Your task to perform on an android device: turn on improve location accuracy Image 0: 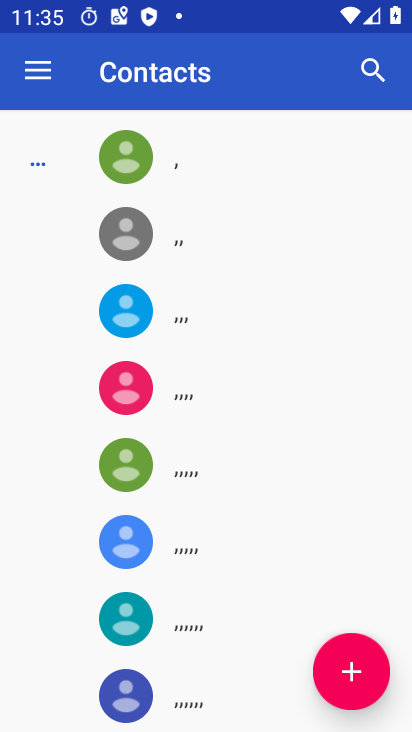
Step 0: press home button
Your task to perform on an android device: turn on improve location accuracy Image 1: 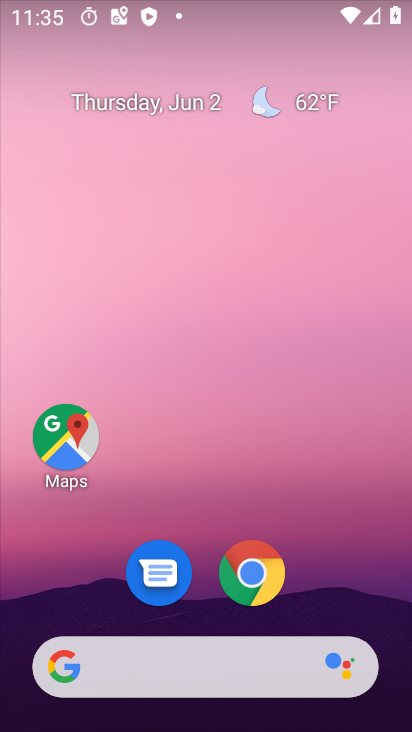
Step 1: drag from (308, 646) to (375, 51)
Your task to perform on an android device: turn on improve location accuracy Image 2: 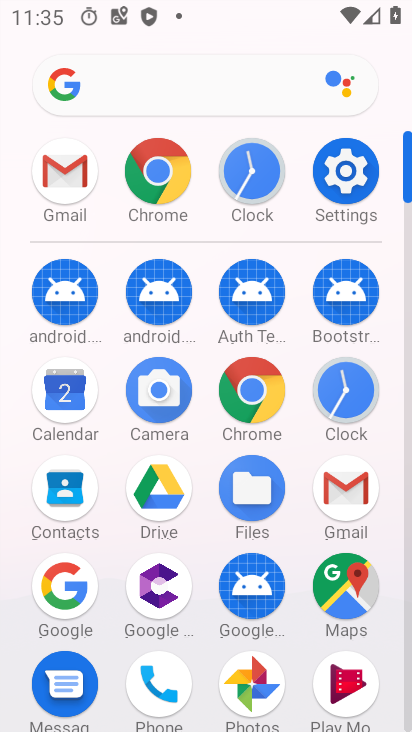
Step 2: click (339, 178)
Your task to perform on an android device: turn on improve location accuracy Image 3: 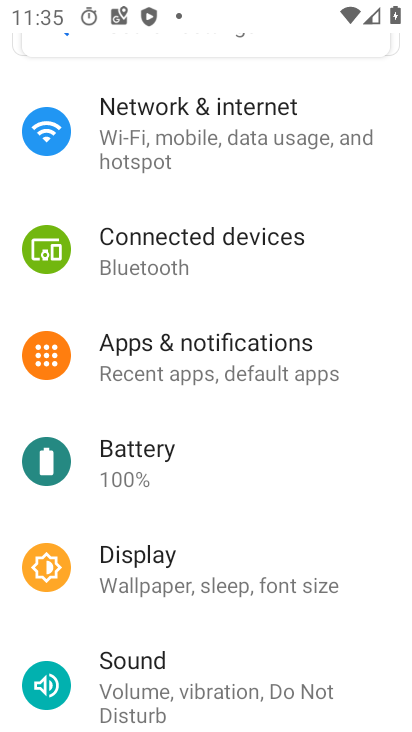
Step 3: drag from (185, 642) to (289, 193)
Your task to perform on an android device: turn on improve location accuracy Image 4: 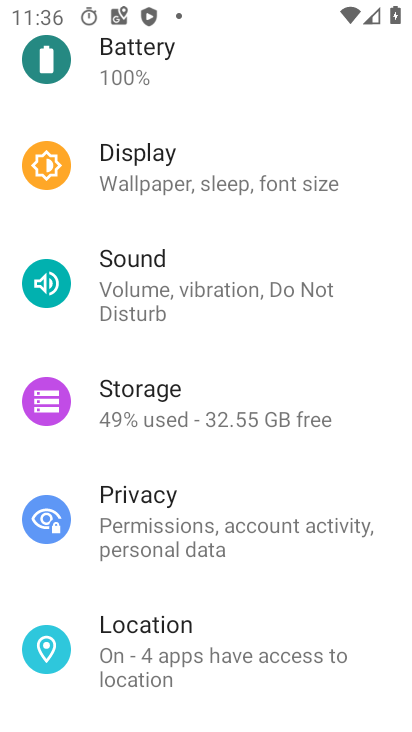
Step 4: click (247, 659)
Your task to perform on an android device: turn on improve location accuracy Image 5: 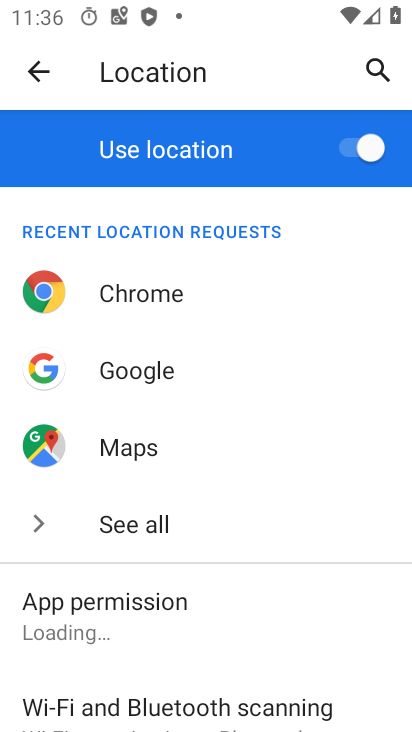
Step 5: drag from (194, 709) to (301, 236)
Your task to perform on an android device: turn on improve location accuracy Image 6: 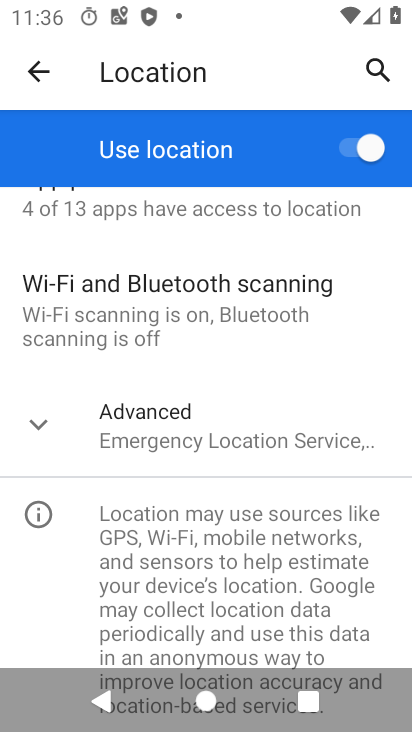
Step 6: click (239, 457)
Your task to perform on an android device: turn on improve location accuracy Image 7: 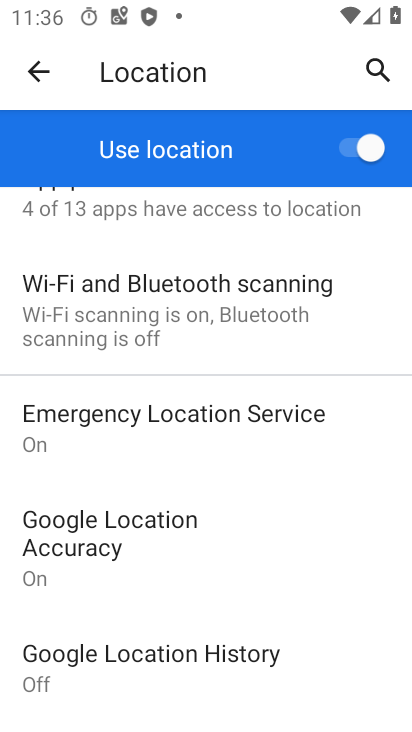
Step 7: click (159, 532)
Your task to perform on an android device: turn on improve location accuracy Image 8: 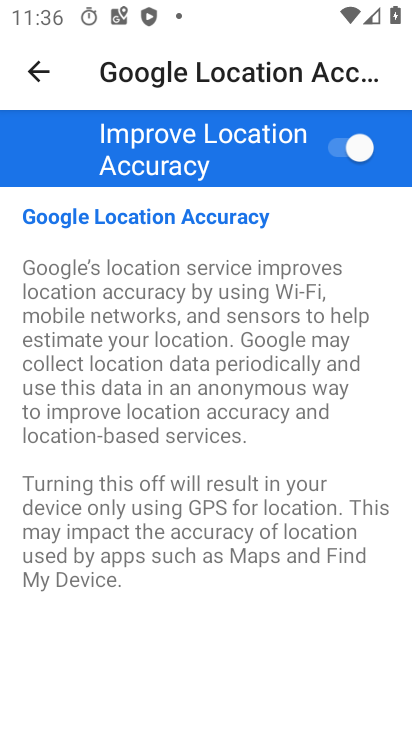
Step 8: task complete